Your task to perform on an android device: View the shopping cart on costco. Add "macbook pro 13 inch" to the cart on costco, then select checkout. Image 0: 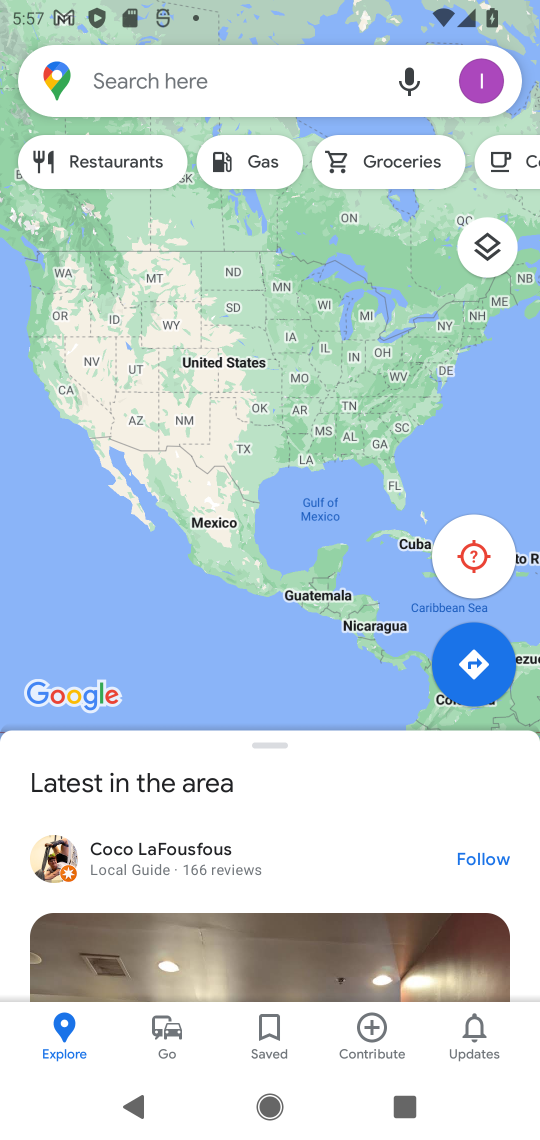
Step 0: press home button
Your task to perform on an android device: View the shopping cart on costco. Add "macbook pro 13 inch" to the cart on costco, then select checkout. Image 1: 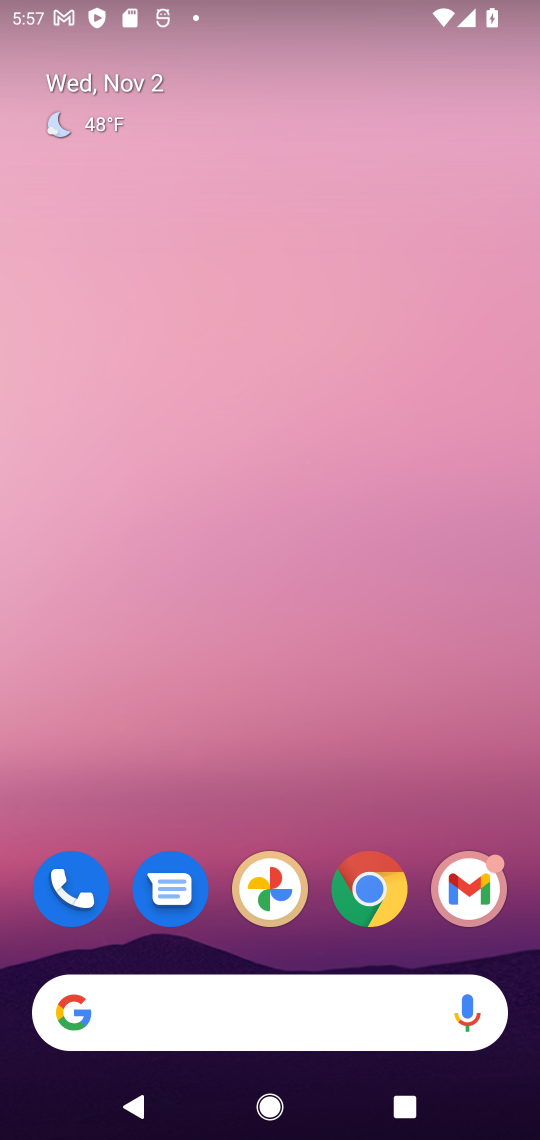
Step 1: click (369, 885)
Your task to perform on an android device: View the shopping cart on costco. Add "macbook pro 13 inch" to the cart on costco, then select checkout. Image 2: 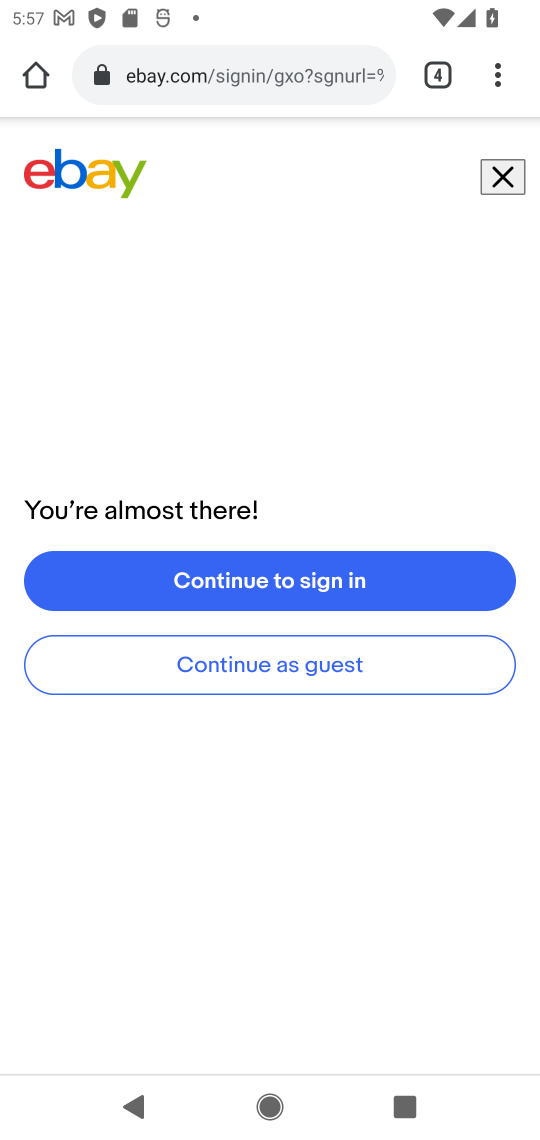
Step 2: click (202, 76)
Your task to perform on an android device: View the shopping cart on costco. Add "macbook pro 13 inch" to the cart on costco, then select checkout. Image 3: 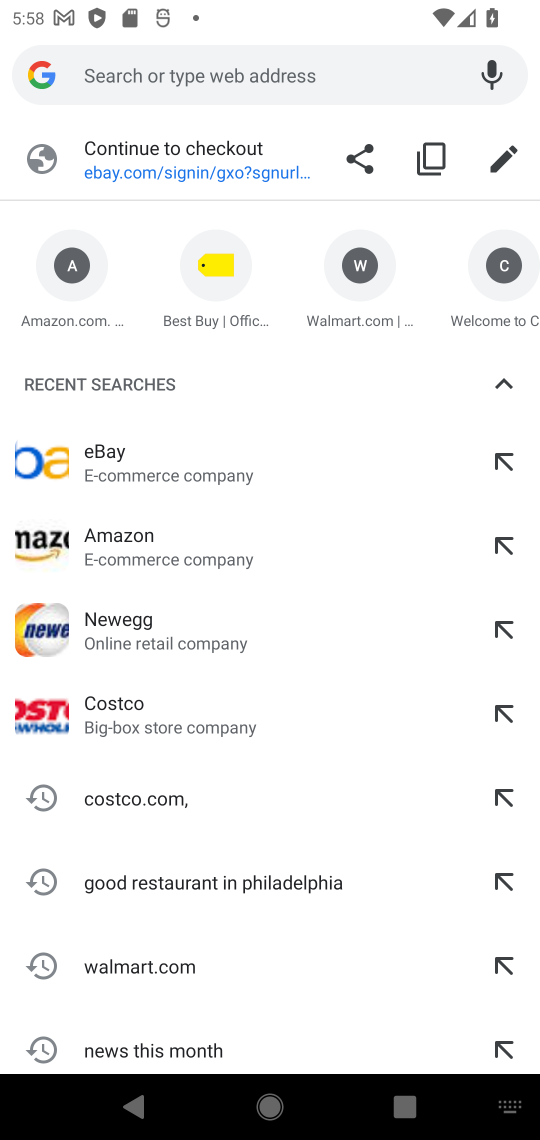
Step 3: click (113, 711)
Your task to perform on an android device: View the shopping cart on costco. Add "macbook pro 13 inch" to the cart on costco, then select checkout. Image 4: 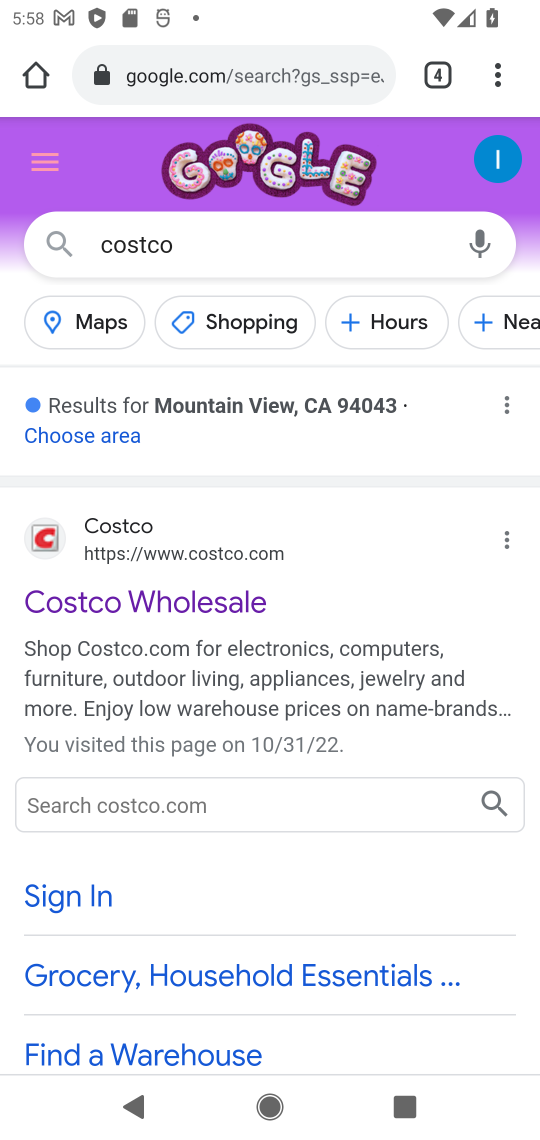
Step 4: click (156, 611)
Your task to perform on an android device: View the shopping cart on costco. Add "macbook pro 13 inch" to the cart on costco, then select checkout. Image 5: 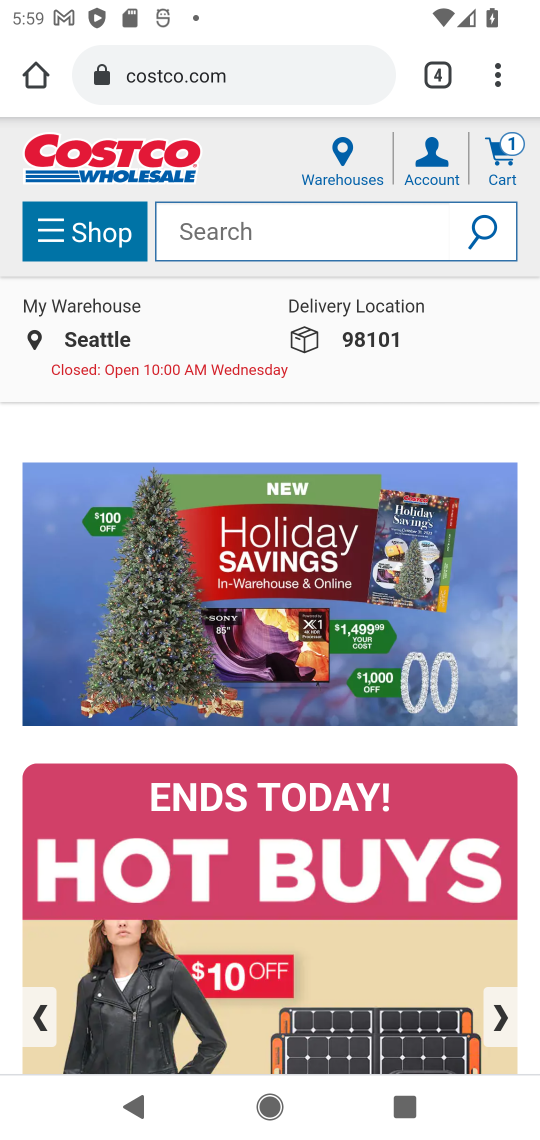
Step 5: click (283, 234)
Your task to perform on an android device: View the shopping cart on costco. Add "macbook pro 13 inch" to the cart on costco, then select checkout. Image 6: 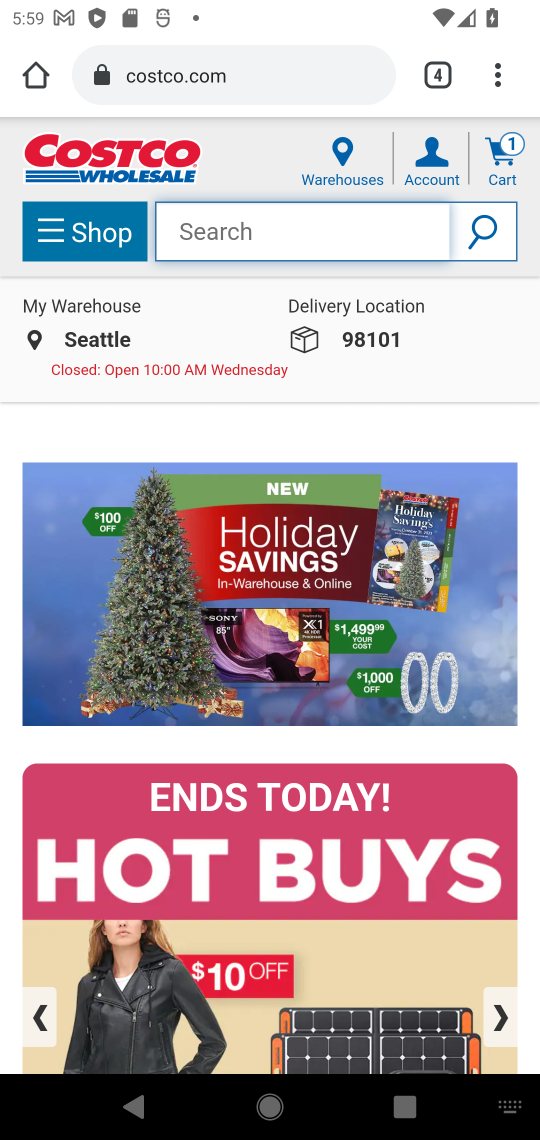
Step 6: type "macbook pro 13 inch"
Your task to perform on an android device: View the shopping cart on costco. Add "macbook pro 13 inch" to the cart on costco, then select checkout. Image 7: 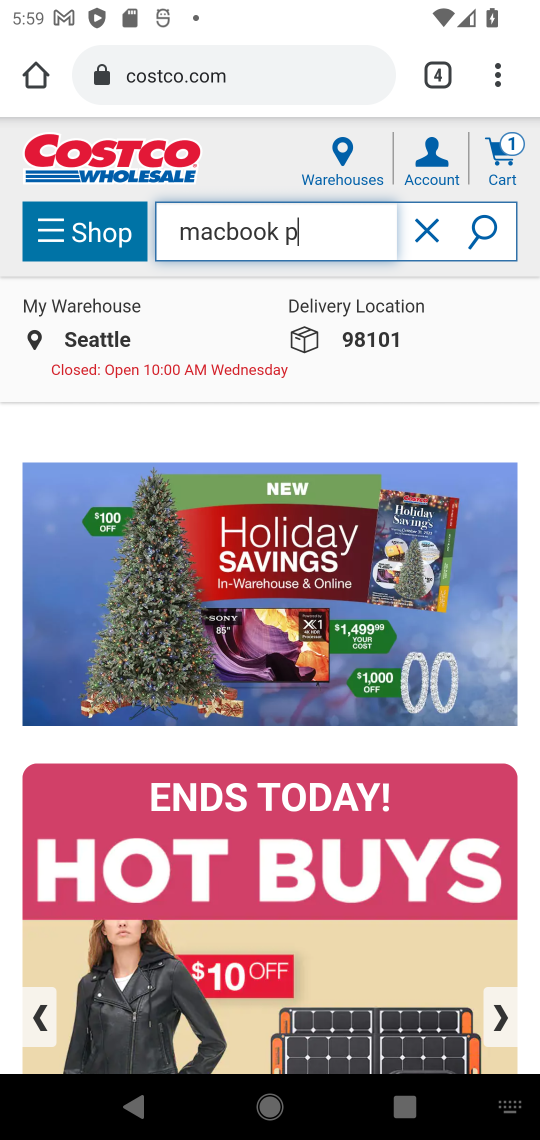
Step 7: press enter
Your task to perform on an android device: View the shopping cart on costco. Add "macbook pro 13 inch" to the cart on costco, then select checkout. Image 8: 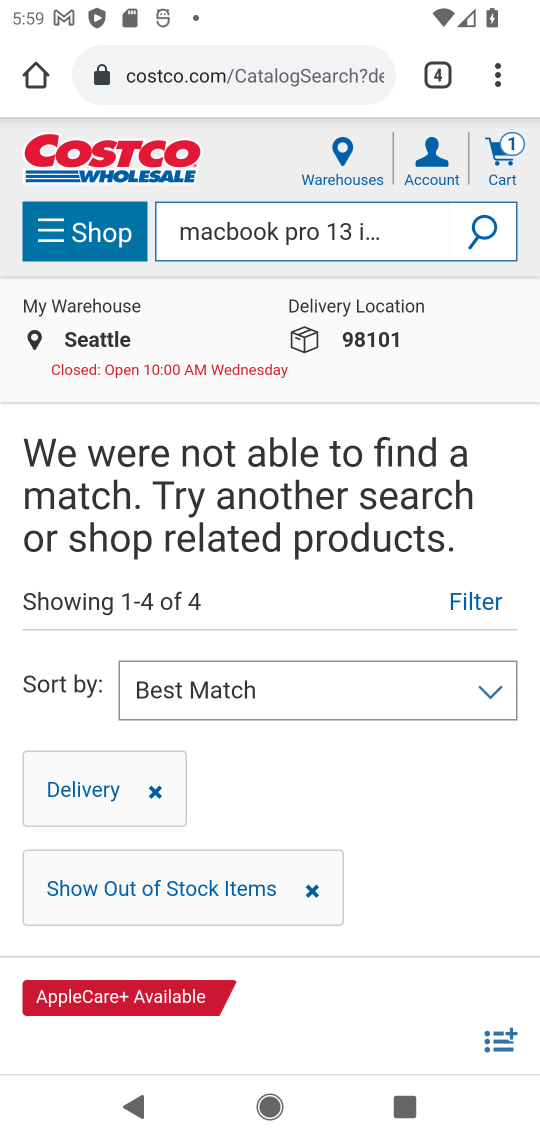
Step 8: drag from (359, 855) to (409, 313)
Your task to perform on an android device: View the shopping cart on costco. Add "macbook pro 13 inch" to the cart on costco, then select checkout. Image 9: 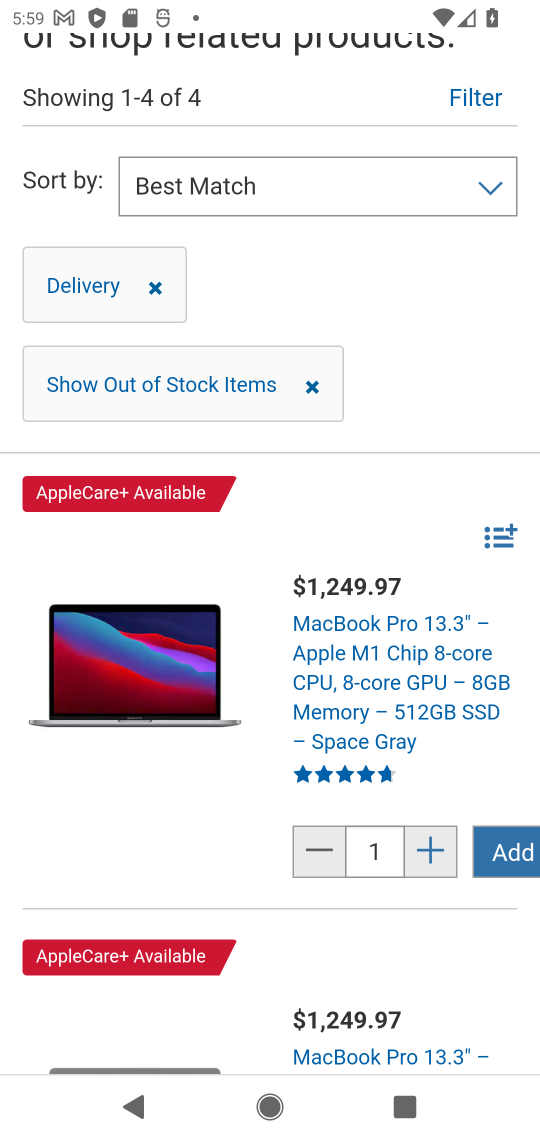
Step 9: click (495, 852)
Your task to perform on an android device: View the shopping cart on costco. Add "macbook pro 13 inch" to the cart on costco, then select checkout. Image 10: 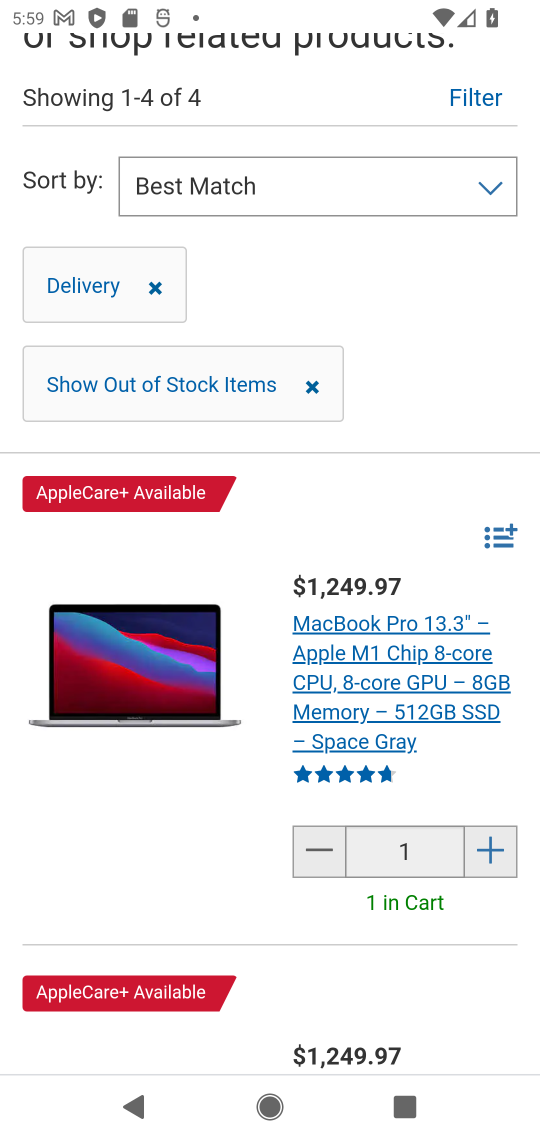
Step 10: drag from (458, 336) to (512, 820)
Your task to perform on an android device: View the shopping cart on costco. Add "macbook pro 13 inch" to the cart on costco, then select checkout. Image 11: 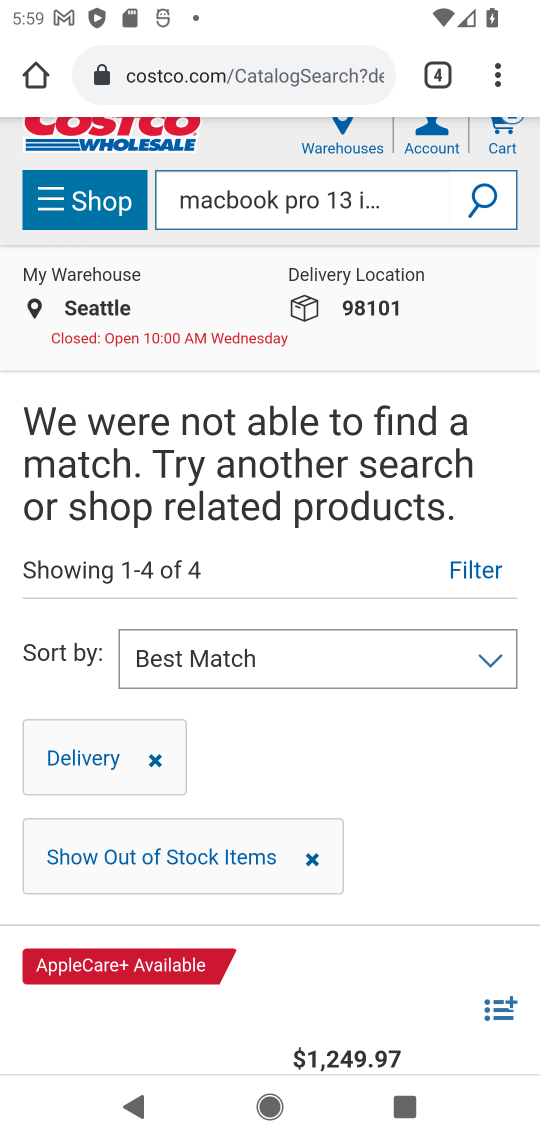
Step 11: click (509, 135)
Your task to perform on an android device: View the shopping cart on costco. Add "macbook pro 13 inch" to the cart on costco, then select checkout. Image 12: 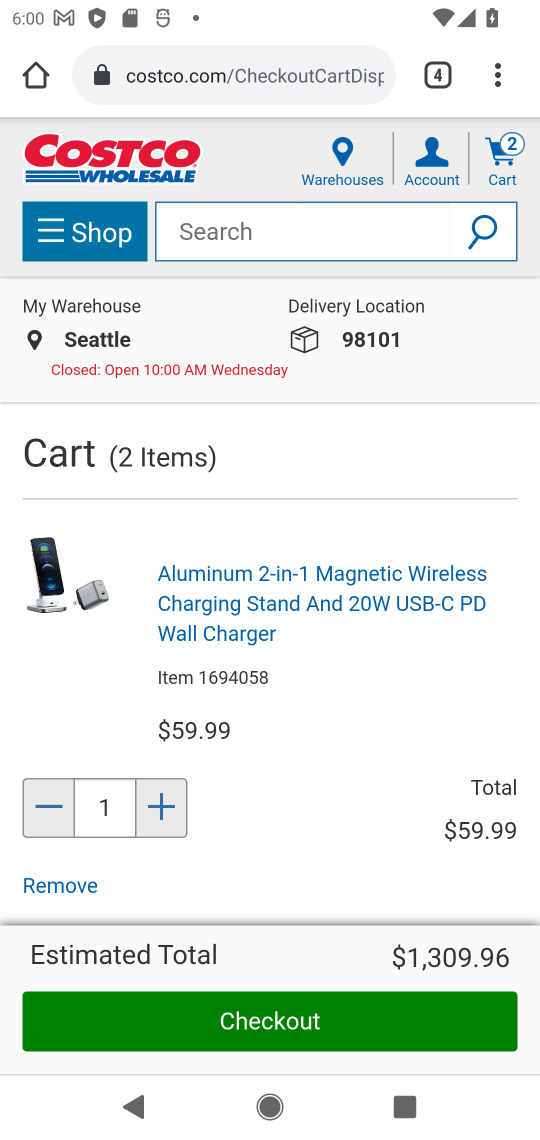
Step 12: click (72, 881)
Your task to perform on an android device: View the shopping cart on costco. Add "macbook pro 13 inch" to the cart on costco, then select checkout. Image 13: 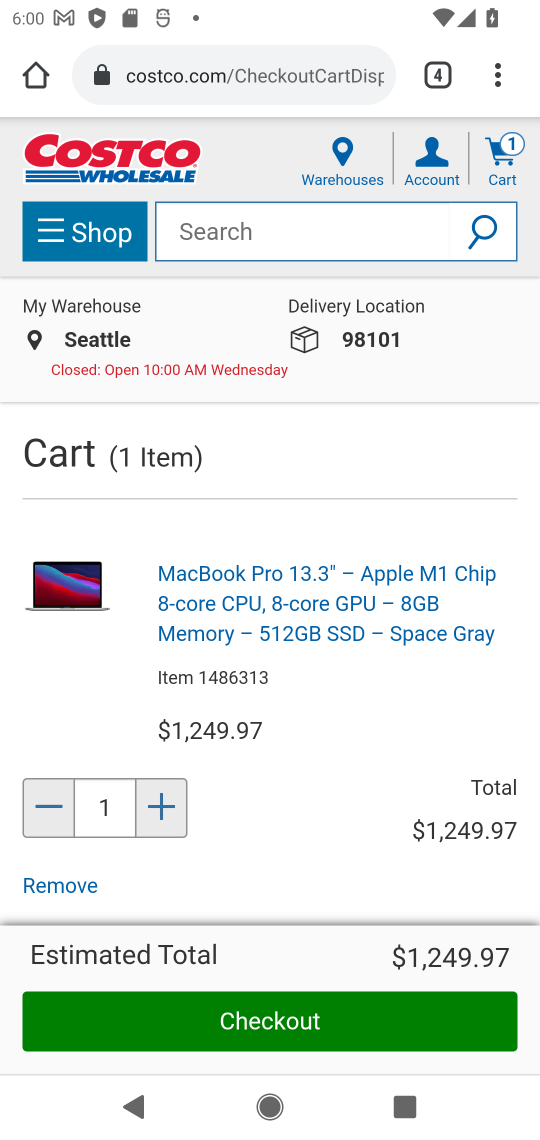
Step 13: click (297, 1014)
Your task to perform on an android device: View the shopping cart on costco. Add "macbook pro 13 inch" to the cart on costco, then select checkout. Image 14: 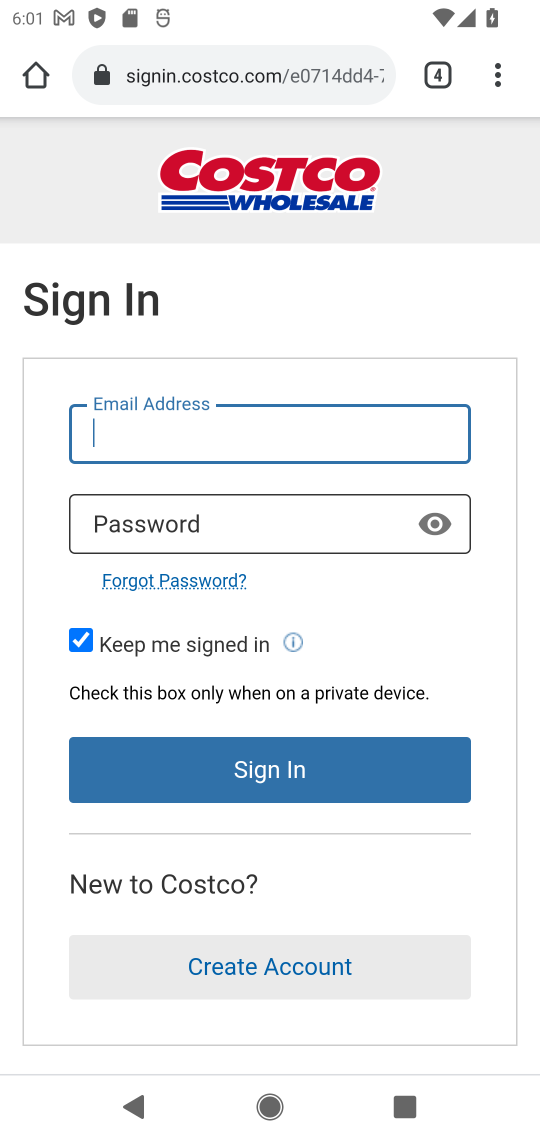
Step 14: task complete